Your task to perform on an android device: check storage Image 0: 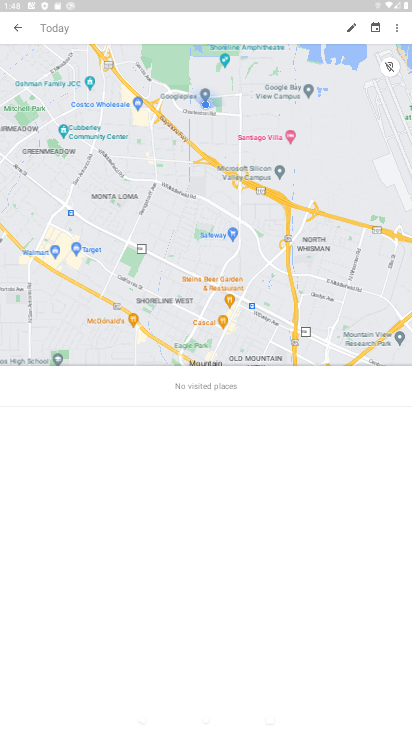
Step 0: press home button
Your task to perform on an android device: check storage Image 1: 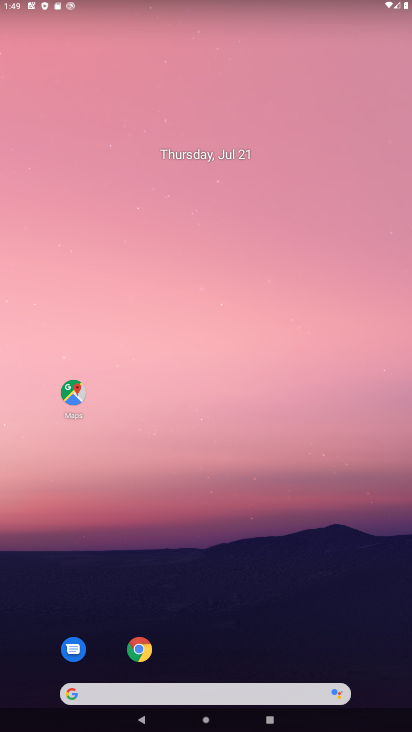
Step 1: drag from (223, 715) to (206, 234)
Your task to perform on an android device: check storage Image 2: 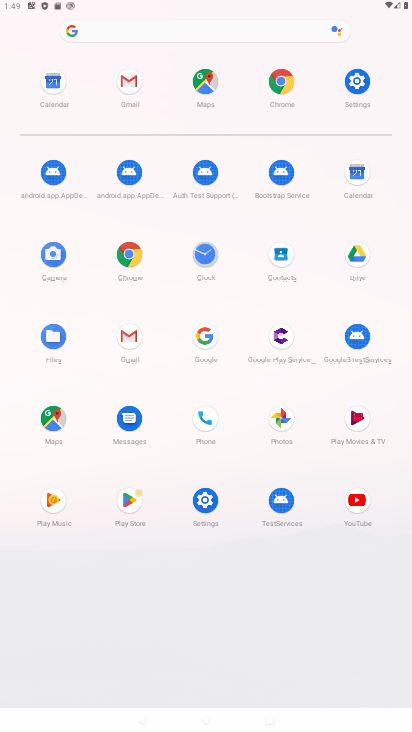
Step 2: click (359, 84)
Your task to perform on an android device: check storage Image 3: 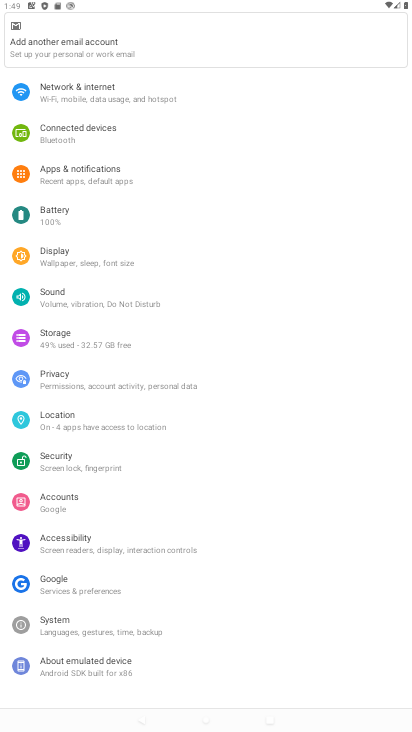
Step 3: click (58, 328)
Your task to perform on an android device: check storage Image 4: 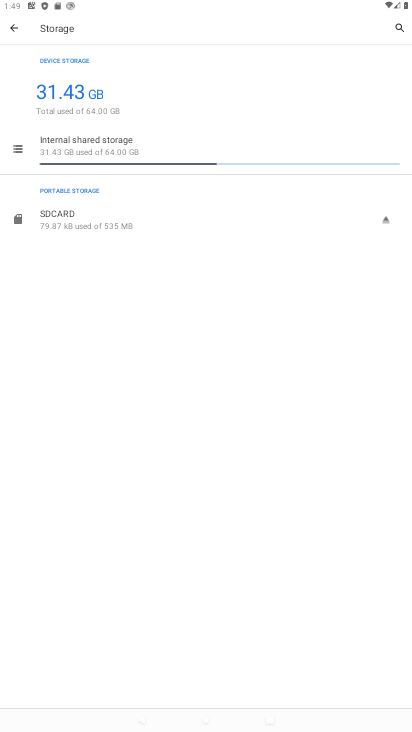
Step 4: task complete